Your task to perform on an android device: Open Reddit.com Image 0: 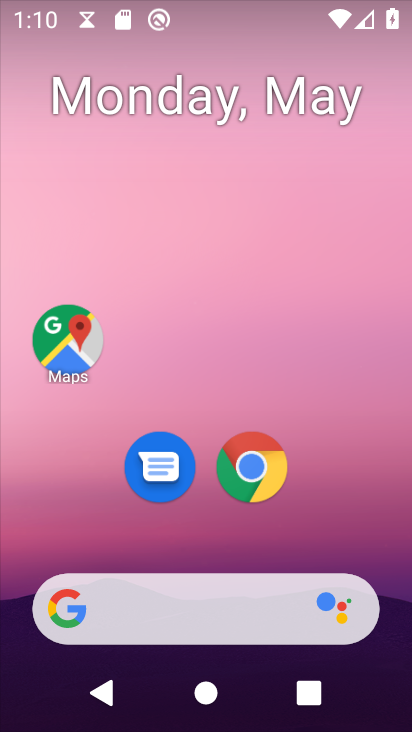
Step 0: click (252, 477)
Your task to perform on an android device: Open Reddit.com Image 1: 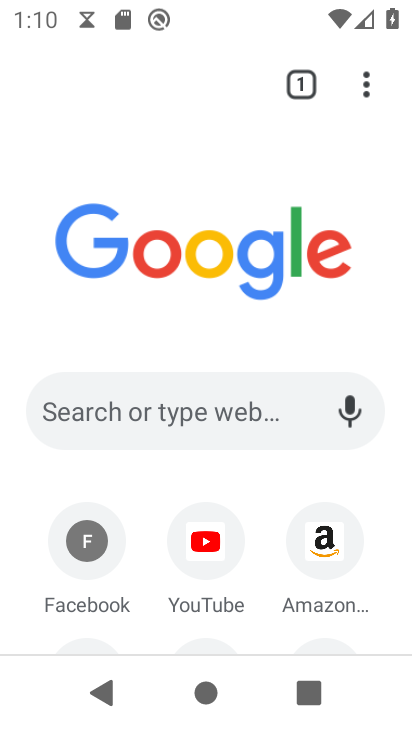
Step 1: click (229, 420)
Your task to perform on an android device: Open Reddit.com Image 2: 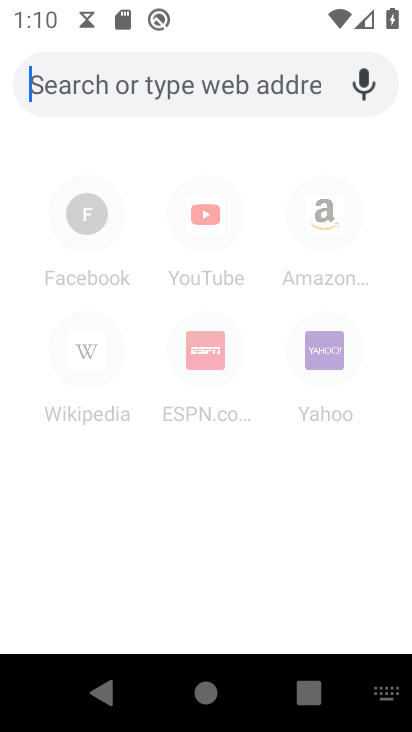
Step 2: type "reddit"
Your task to perform on an android device: Open Reddit.com Image 3: 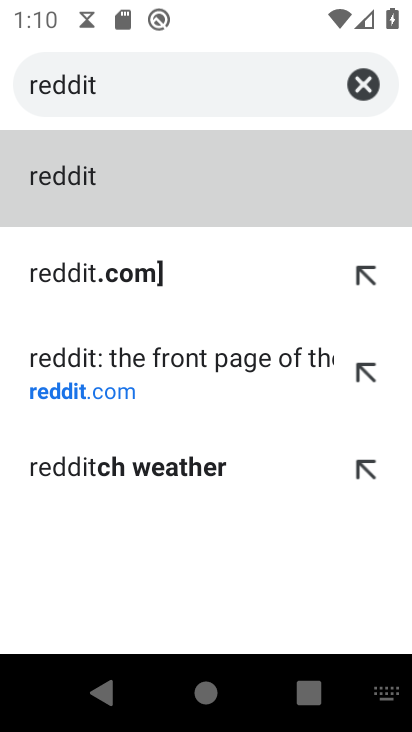
Step 3: click (182, 392)
Your task to perform on an android device: Open Reddit.com Image 4: 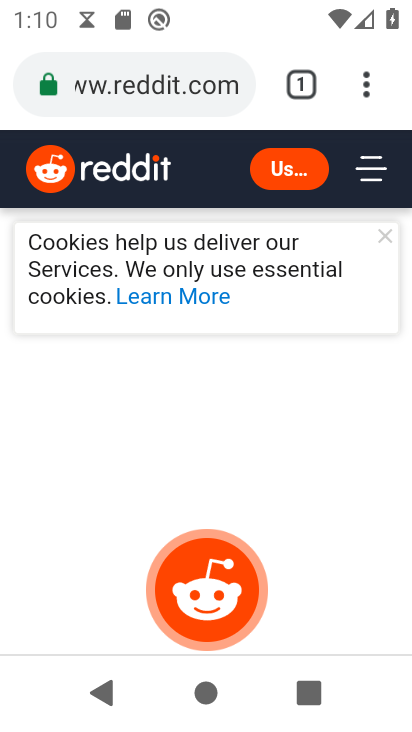
Step 4: task complete